Your task to perform on an android device: Toggle the flashlight Image 0: 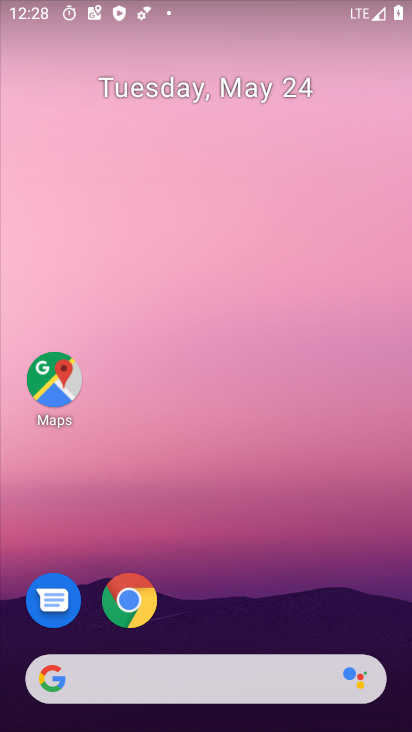
Step 0: drag from (256, 529) to (248, 69)
Your task to perform on an android device: Toggle the flashlight Image 1: 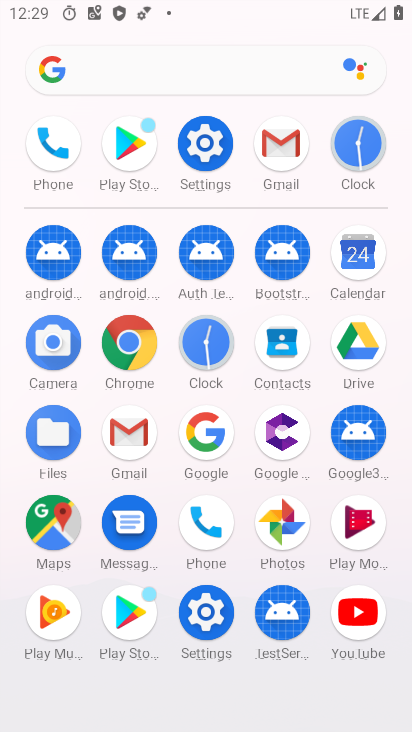
Step 1: click (203, 138)
Your task to perform on an android device: Toggle the flashlight Image 2: 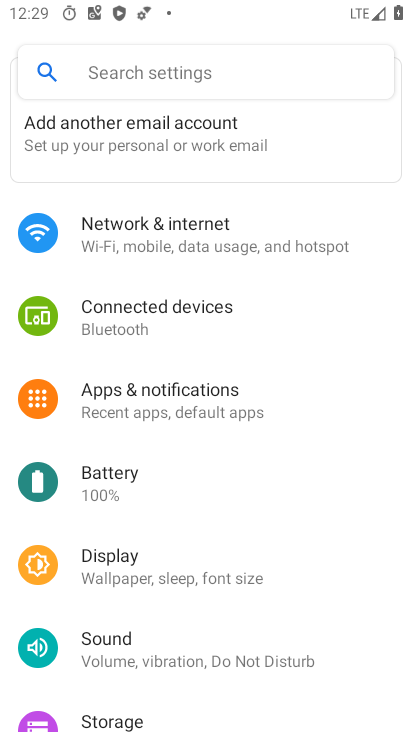
Step 2: click (133, 569)
Your task to perform on an android device: Toggle the flashlight Image 3: 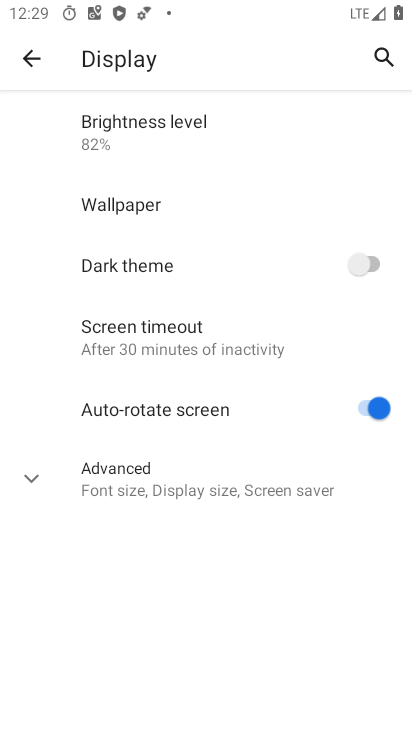
Step 3: task complete